Your task to perform on an android device: add a contact Image 0: 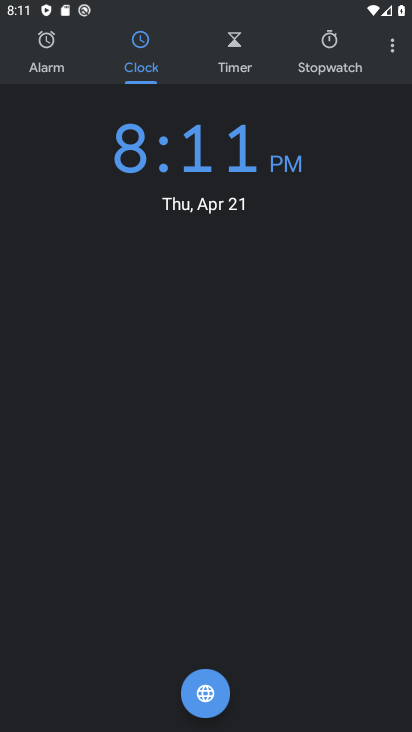
Step 0: press home button
Your task to perform on an android device: add a contact Image 1: 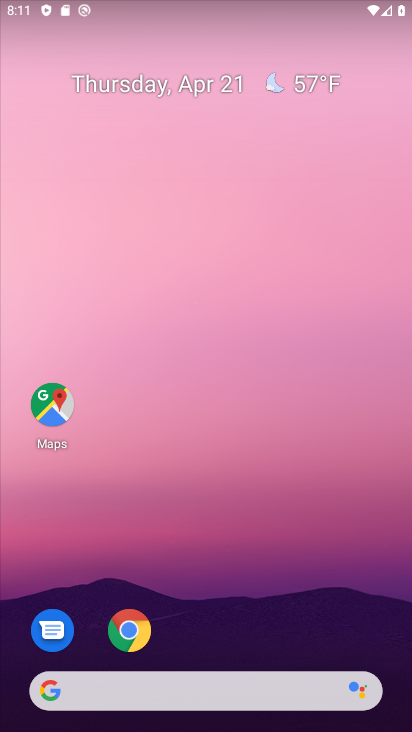
Step 1: drag from (289, 630) to (297, 184)
Your task to perform on an android device: add a contact Image 2: 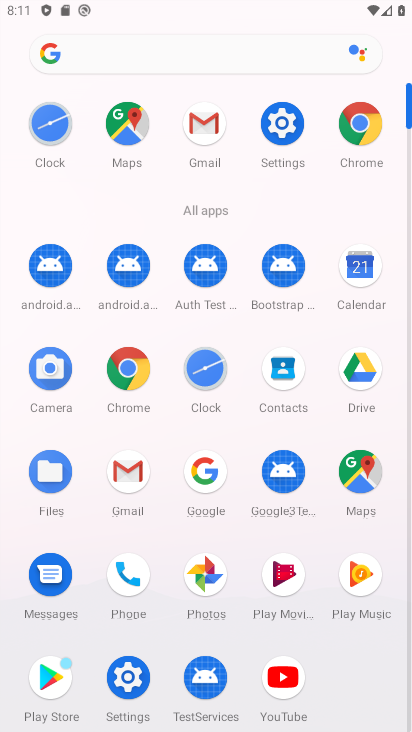
Step 2: click (280, 374)
Your task to perform on an android device: add a contact Image 3: 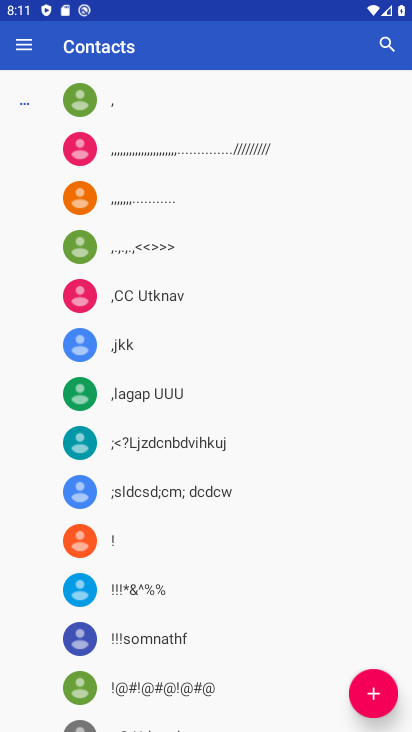
Step 3: click (375, 688)
Your task to perform on an android device: add a contact Image 4: 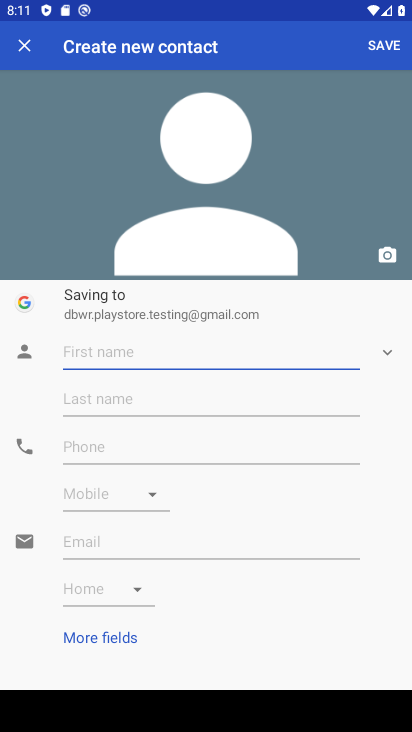
Step 4: type "seeta"
Your task to perform on an android device: add a contact Image 5: 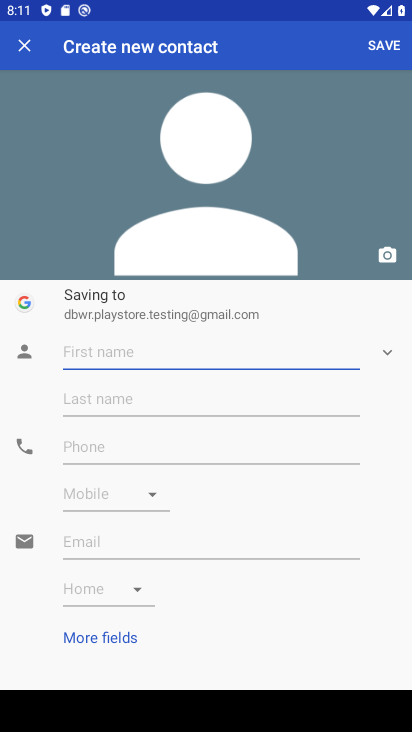
Step 5: click (385, 57)
Your task to perform on an android device: add a contact Image 6: 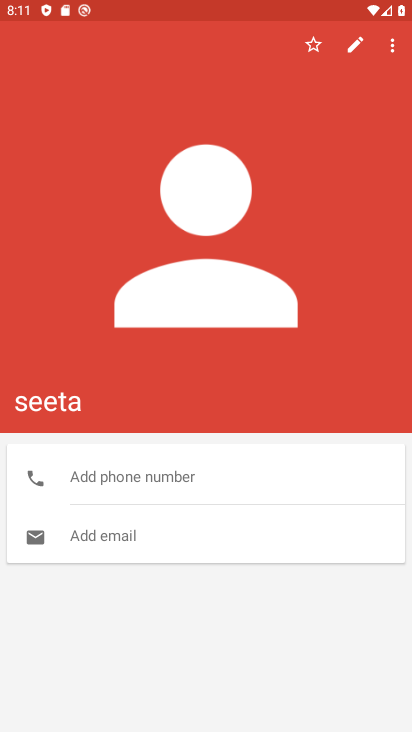
Step 6: task complete